Your task to perform on an android device: Open Google Image 0: 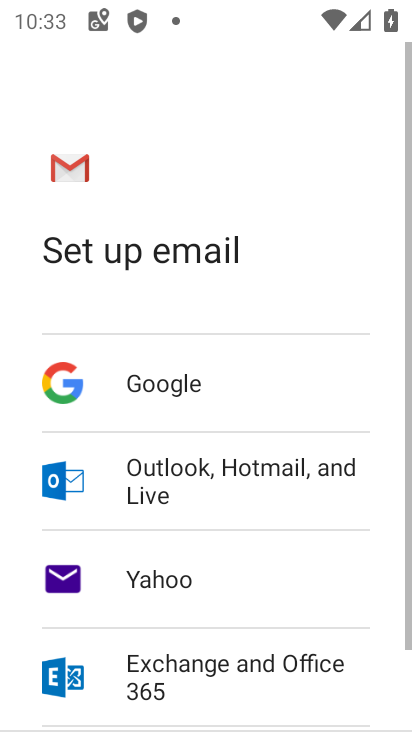
Step 0: press home button
Your task to perform on an android device: Open Google Image 1: 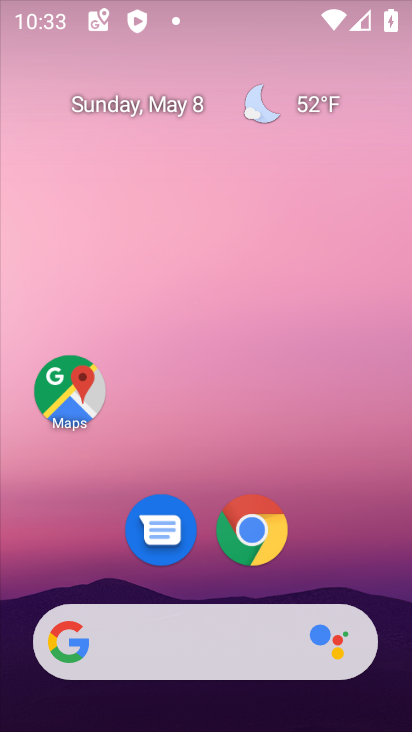
Step 1: drag from (316, 550) to (324, 184)
Your task to perform on an android device: Open Google Image 2: 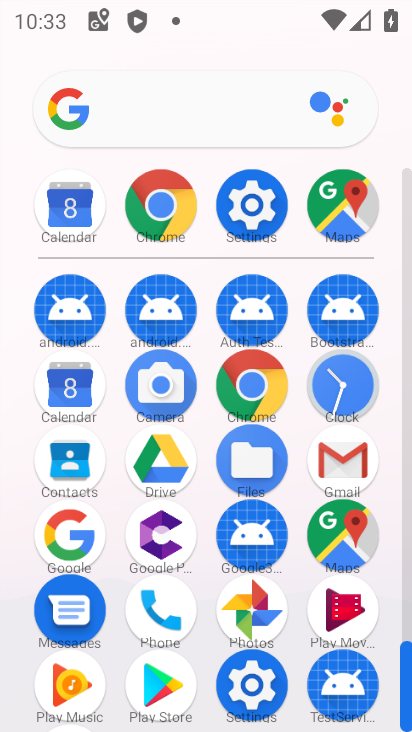
Step 2: click (87, 544)
Your task to perform on an android device: Open Google Image 3: 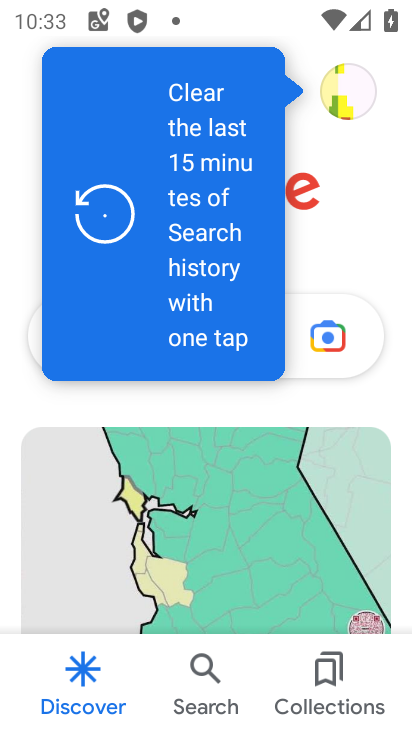
Step 3: task complete